Your task to perform on an android device: turn off improve location accuracy Image 0: 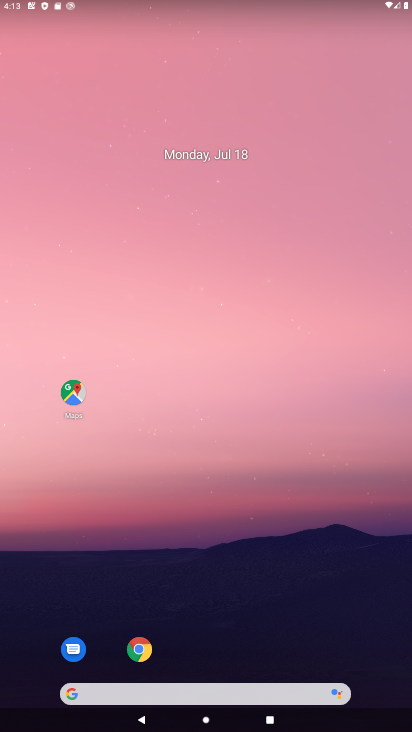
Step 0: drag from (251, 595) to (275, 119)
Your task to perform on an android device: turn off improve location accuracy Image 1: 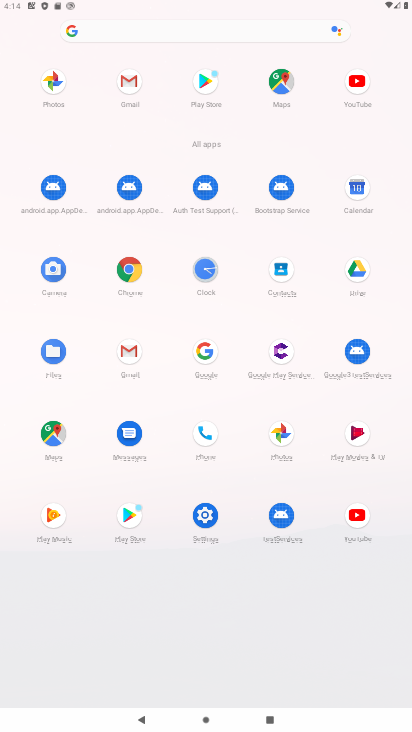
Step 1: click (199, 510)
Your task to perform on an android device: turn off improve location accuracy Image 2: 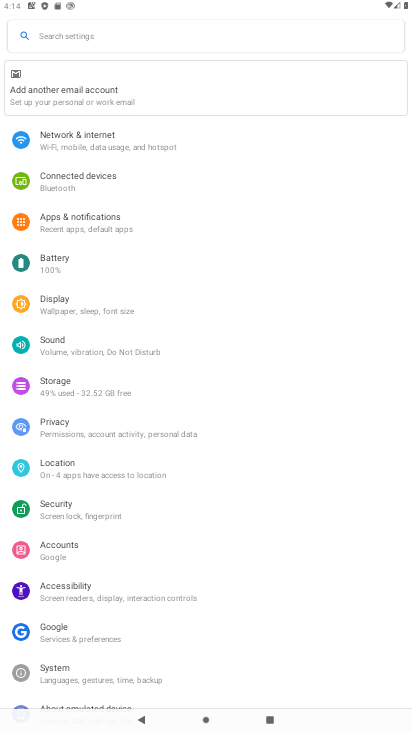
Step 2: click (63, 463)
Your task to perform on an android device: turn off improve location accuracy Image 3: 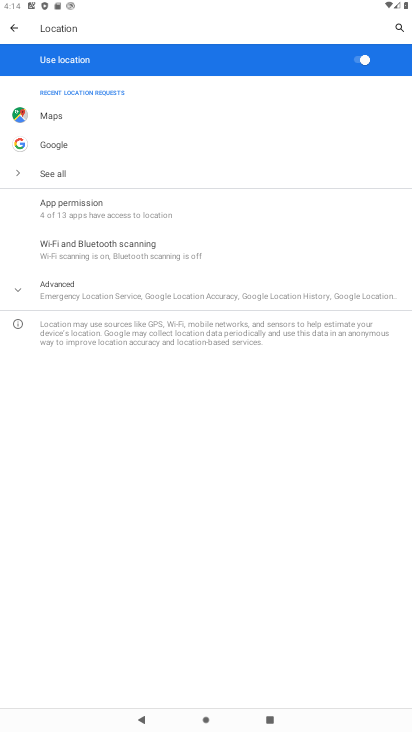
Step 3: click (85, 291)
Your task to perform on an android device: turn off improve location accuracy Image 4: 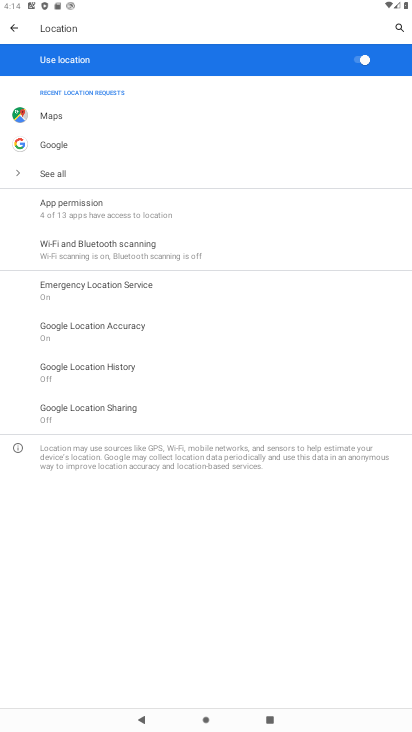
Step 4: click (110, 342)
Your task to perform on an android device: turn off improve location accuracy Image 5: 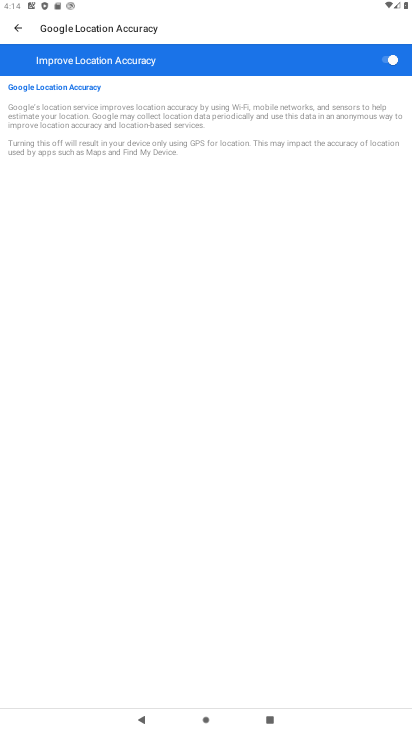
Step 5: click (390, 66)
Your task to perform on an android device: turn off improve location accuracy Image 6: 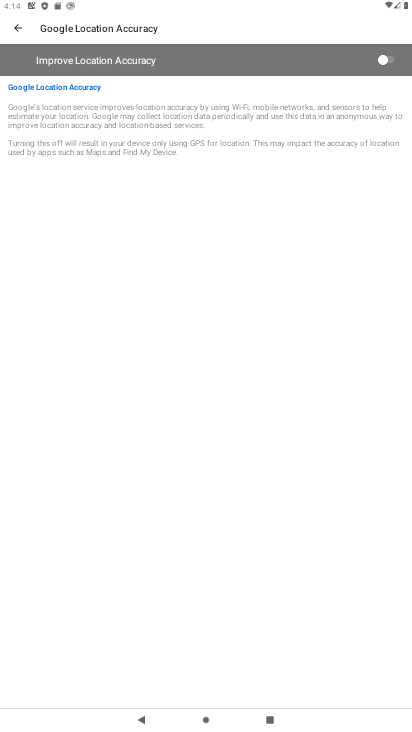
Step 6: task complete